Your task to perform on an android device: Open Google Image 0: 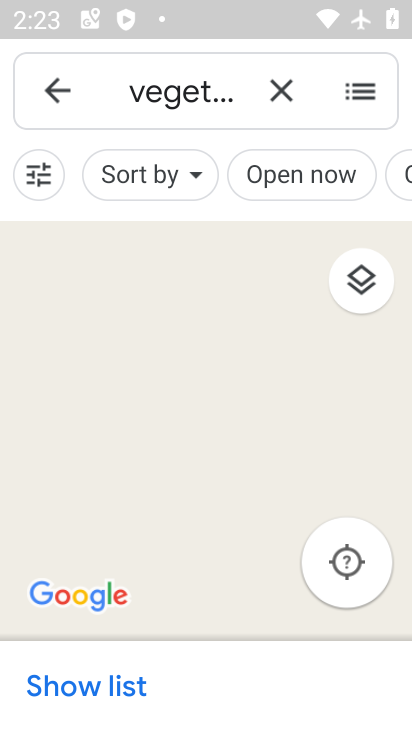
Step 0: press home button
Your task to perform on an android device: Open Google Image 1: 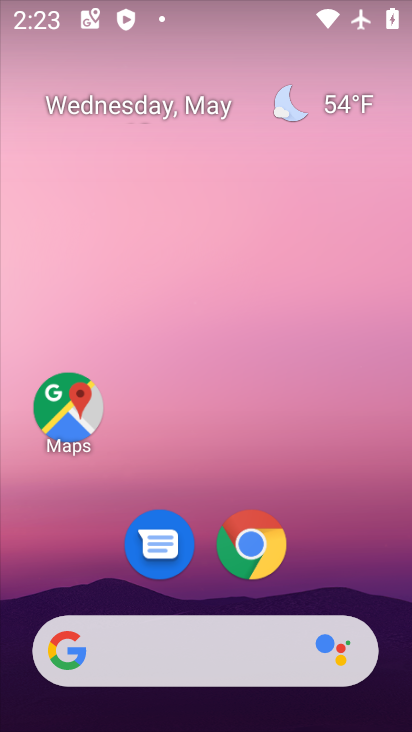
Step 1: click (272, 531)
Your task to perform on an android device: Open Google Image 2: 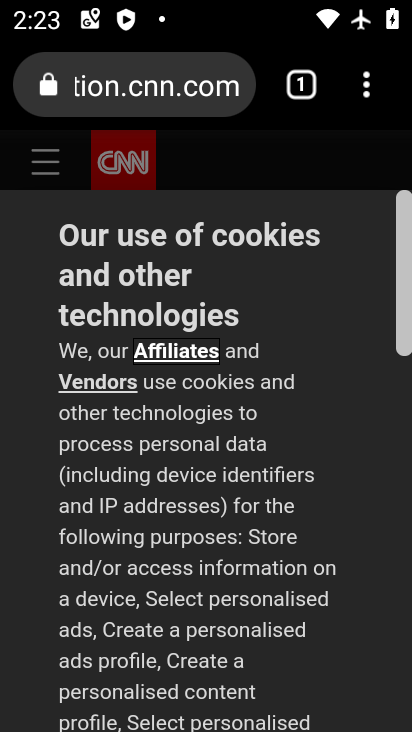
Step 2: click (207, 94)
Your task to perform on an android device: Open Google Image 3: 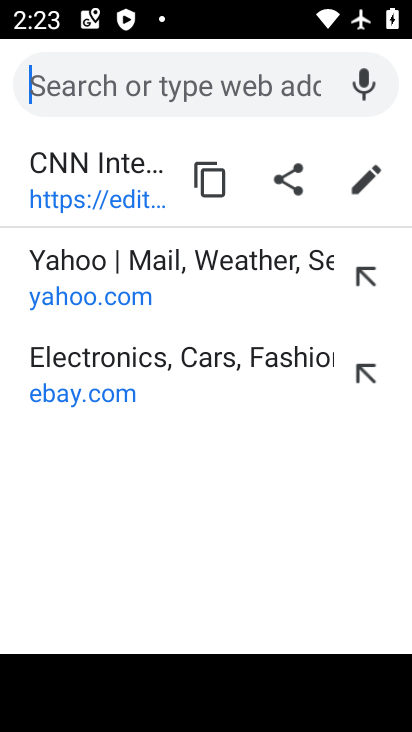
Step 3: type "google.com"
Your task to perform on an android device: Open Google Image 4: 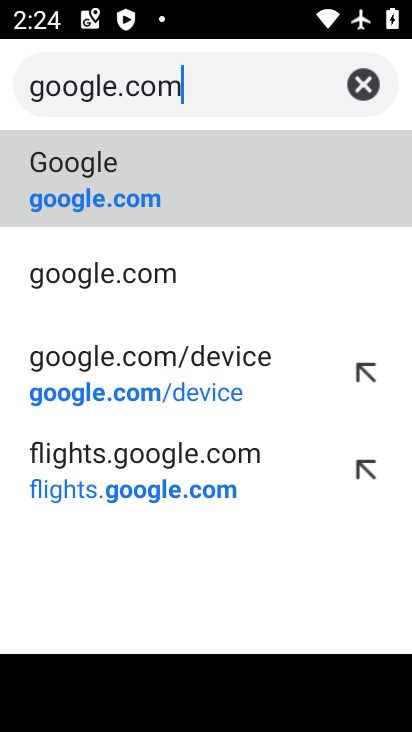
Step 4: click (181, 205)
Your task to perform on an android device: Open Google Image 5: 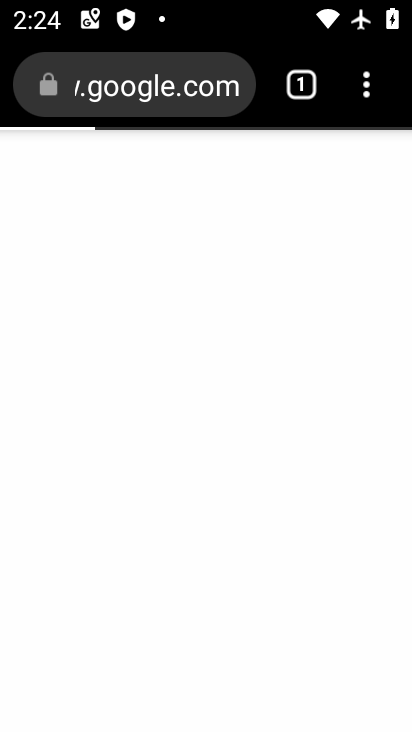
Step 5: task complete